Your task to perform on an android device: Show me productivity apps on the Play Store Image 0: 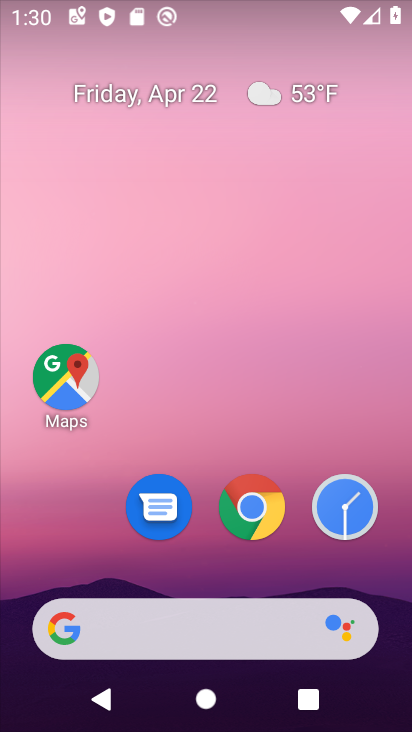
Step 0: drag from (297, 578) to (322, 104)
Your task to perform on an android device: Show me productivity apps on the Play Store Image 1: 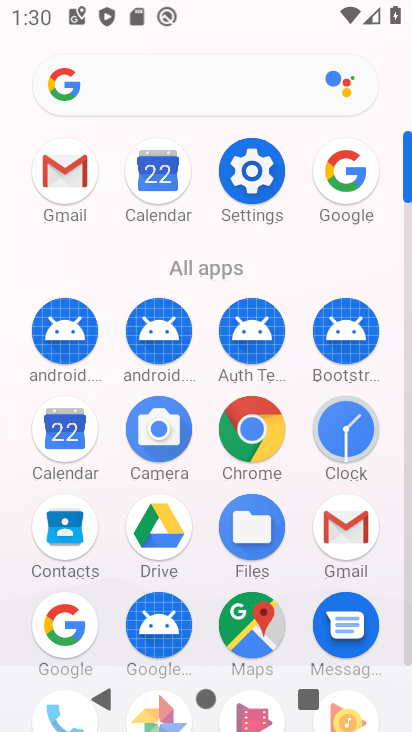
Step 1: drag from (289, 654) to (331, 352)
Your task to perform on an android device: Show me productivity apps on the Play Store Image 2: 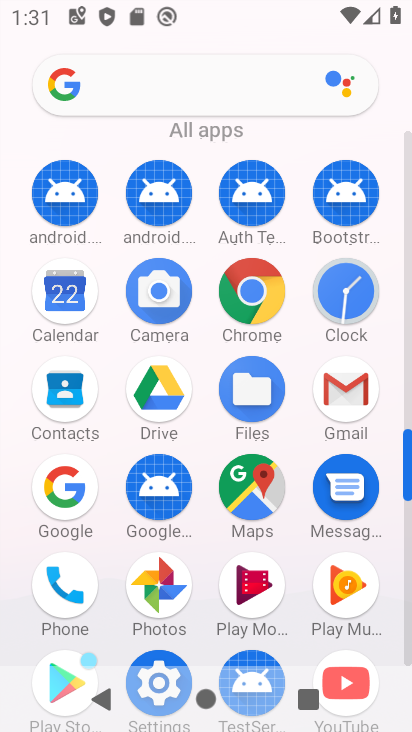
Step 2: drag from (300, 573) to (307, 333)
Your task to perform on an android device: Show me productivity apps on the Play Store Image 3: 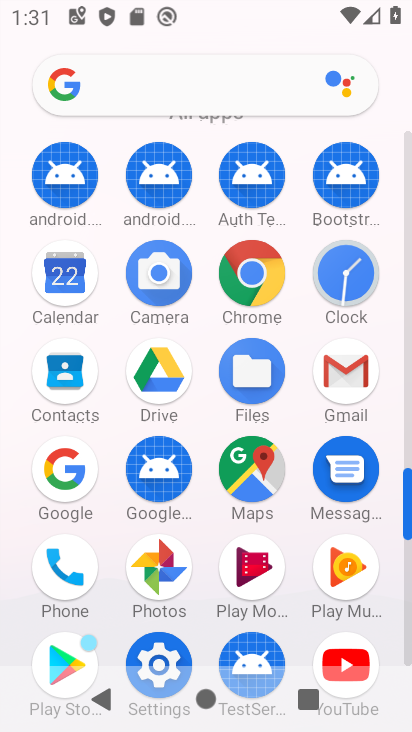
Step 3: drag from (206, 596) to (252, 253)
Your task to perform on an android device: Show me productivity apps on the Play Store Image 4: 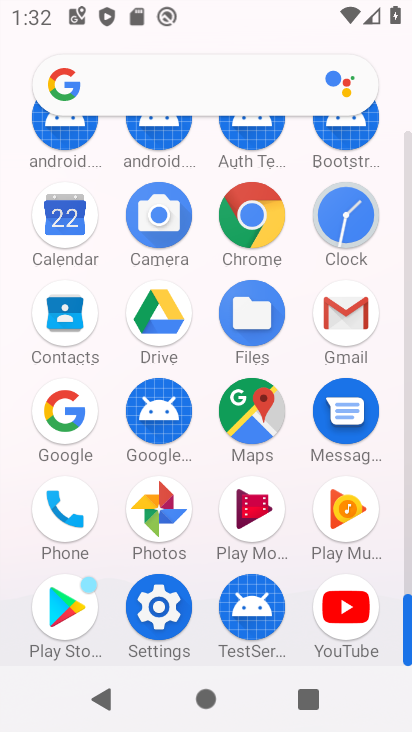
Step 4: click (57, 603)
Your task to perform on an android device: Show me productivity apps on the Play Store Image 5: 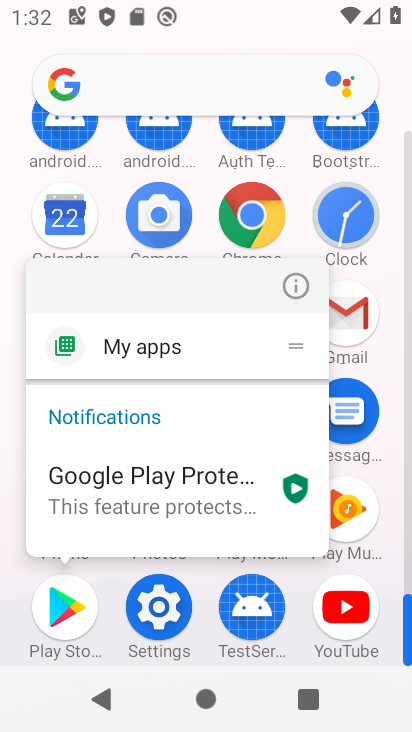
Step 5: click (58, 605)
Your task to perform on an android device: Show me productivity apps on the Play Store Image 6: 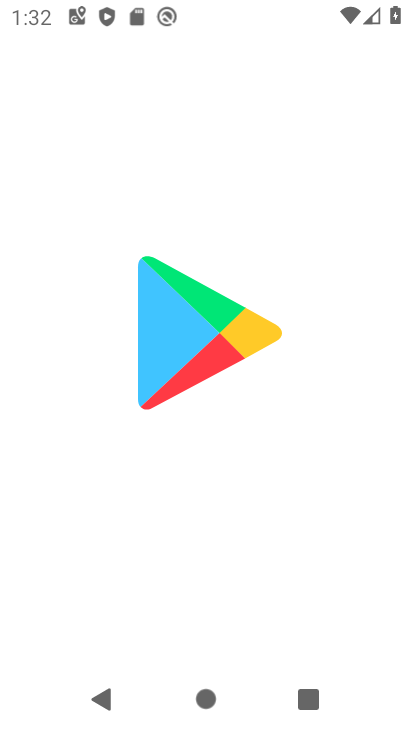
Step 6: click (70, 612)
Your task to perform on an android device: Show me productivity apps on the Play Store Image 7: 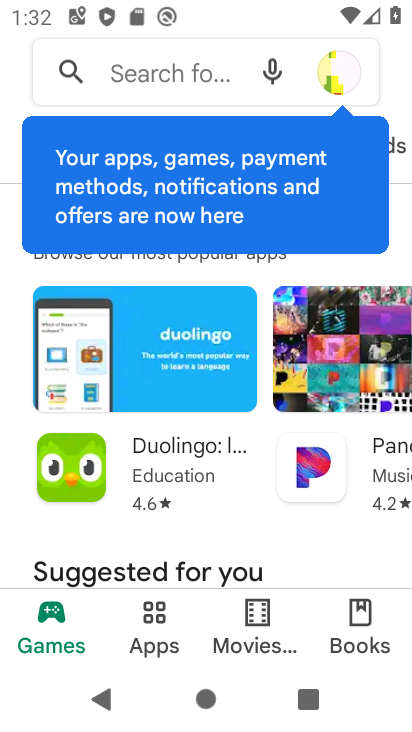
Step 7: click (151, 80)
Your task to perform on an android device: Show me productivity apps on the Play Store Image 8: 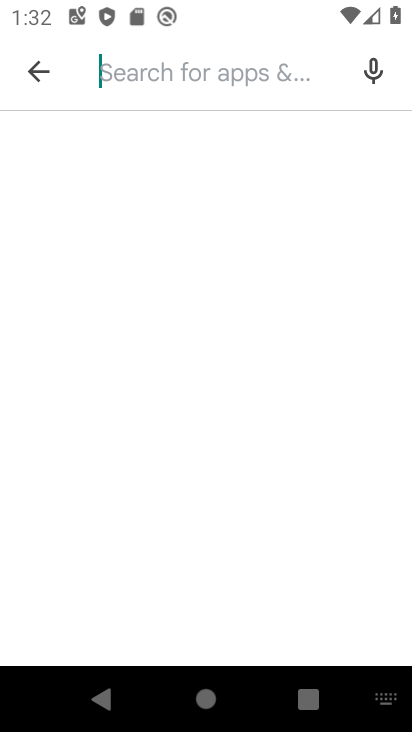
Step 8: type "productivity apps"
Your task to perform on an android device: Show me productivity apps on the Play Store Image 9: 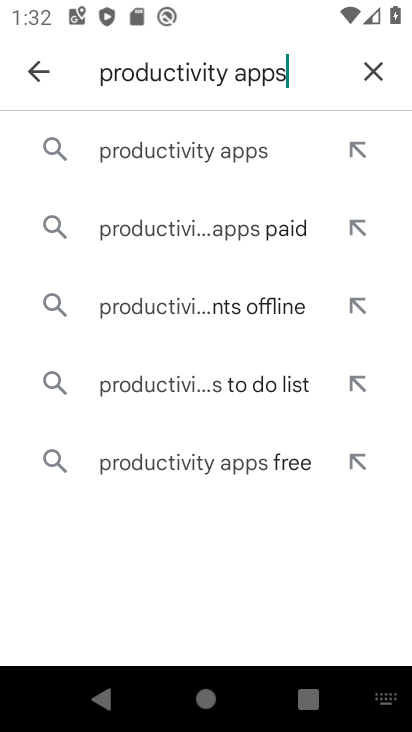
Step 9: click (192, 155)
Your task to perform on an android device: Show me productivity apps on the Play Store Image 10: 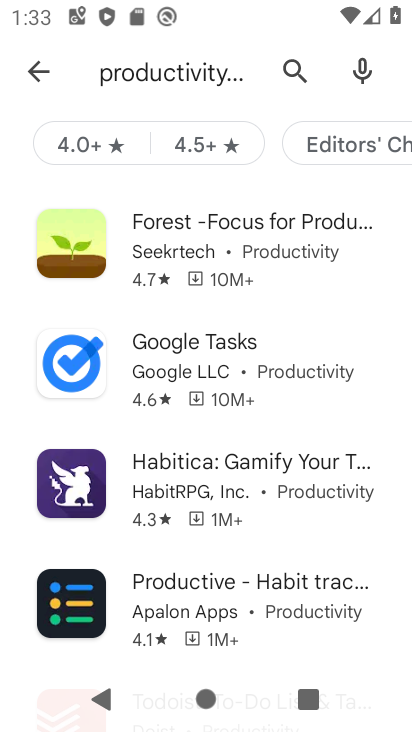
Step 10: task complete